Your task to perform on an android device: Open Maps and search for coffee Image 0: 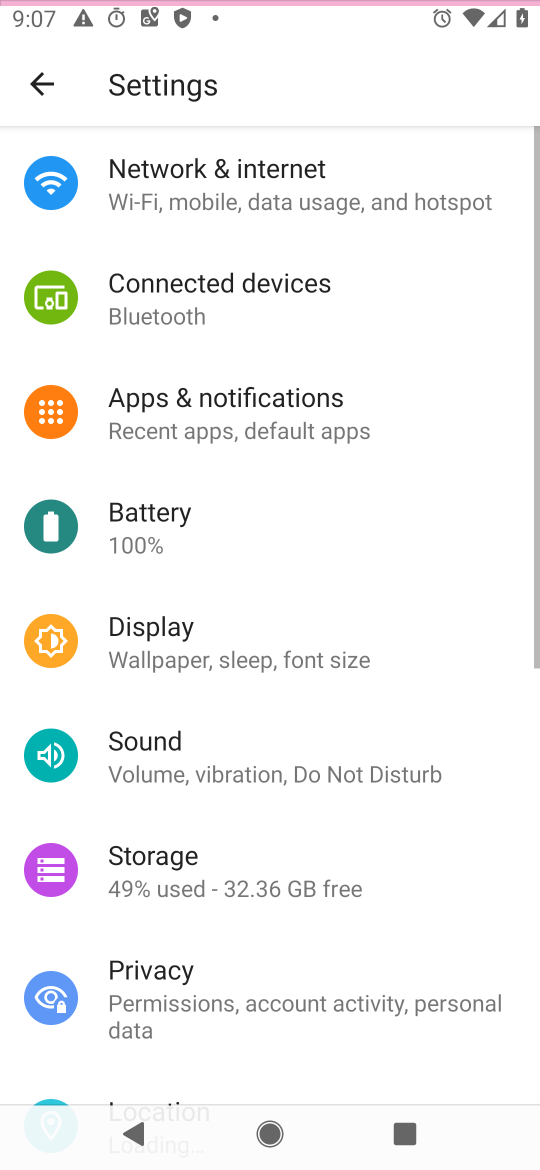
Step 0: press home button
Your task to perform on an android device: Open Maps and search for coffee Image 1: 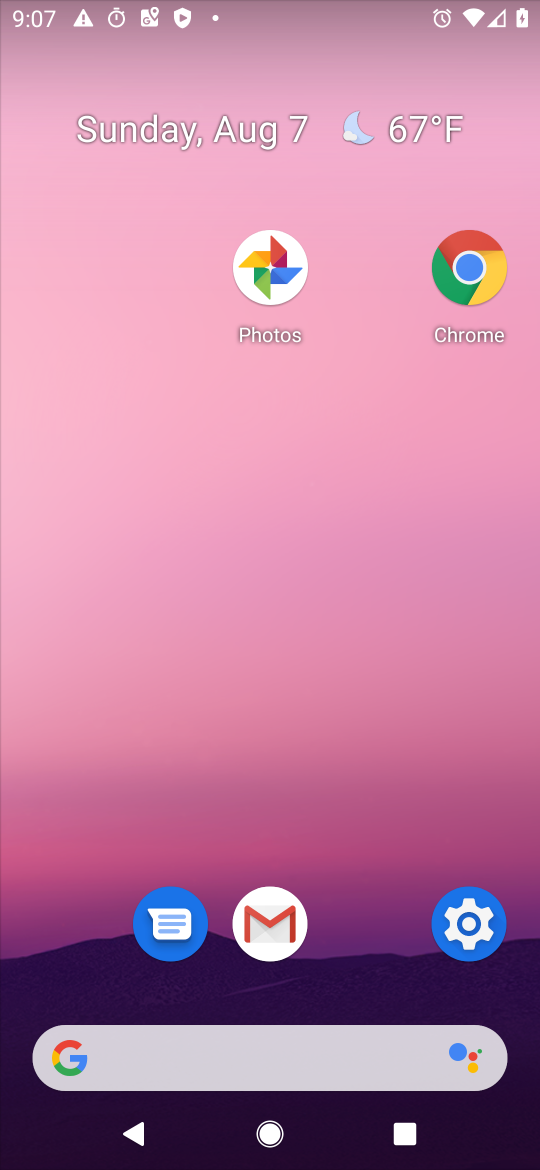
Step 1: drag from (380, 849) to (388, 370)
Your task to perform on an android device: Open Maps and search for coffee Image 2: 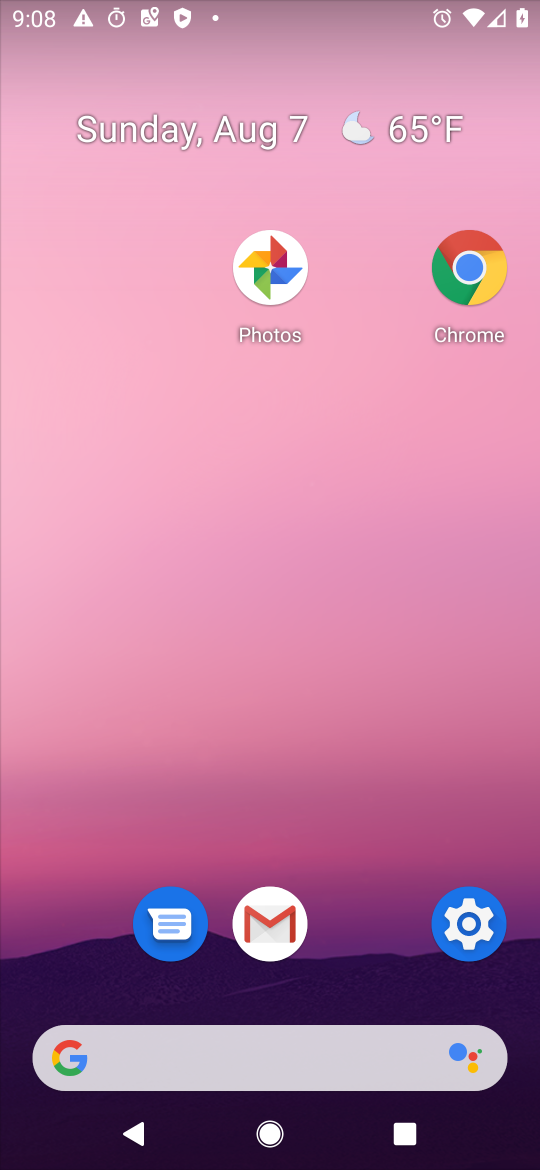
Step 2: drag from (273, 852) to (151, 196)
Your task to perform on an android device: Open Maps and search for coffee Image 3: 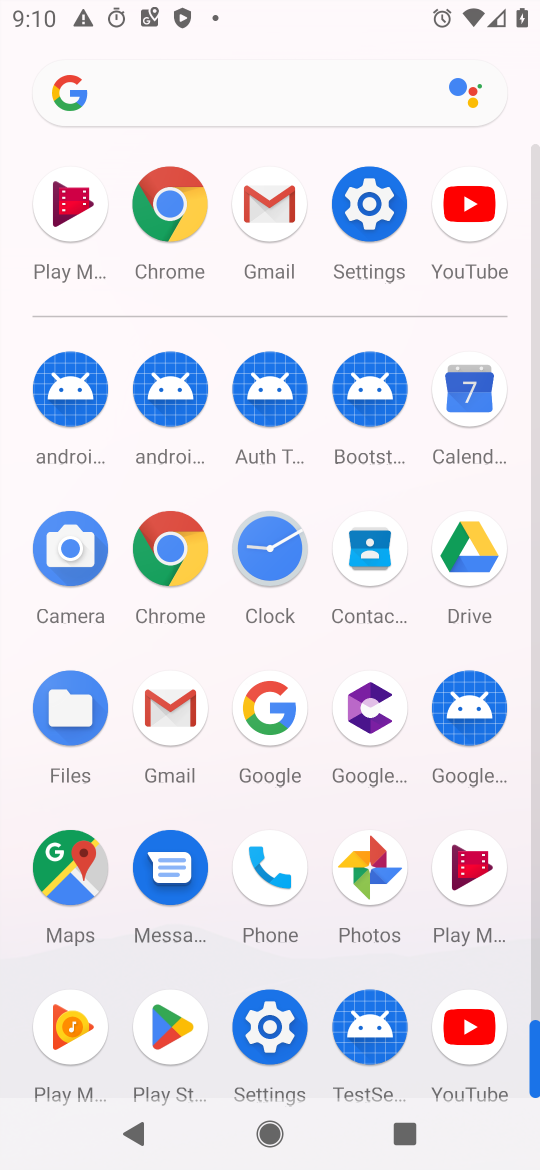
Step 3: click (77, 869)
Your task to perform on an android device: Open Maps and search for coffee Image 4: 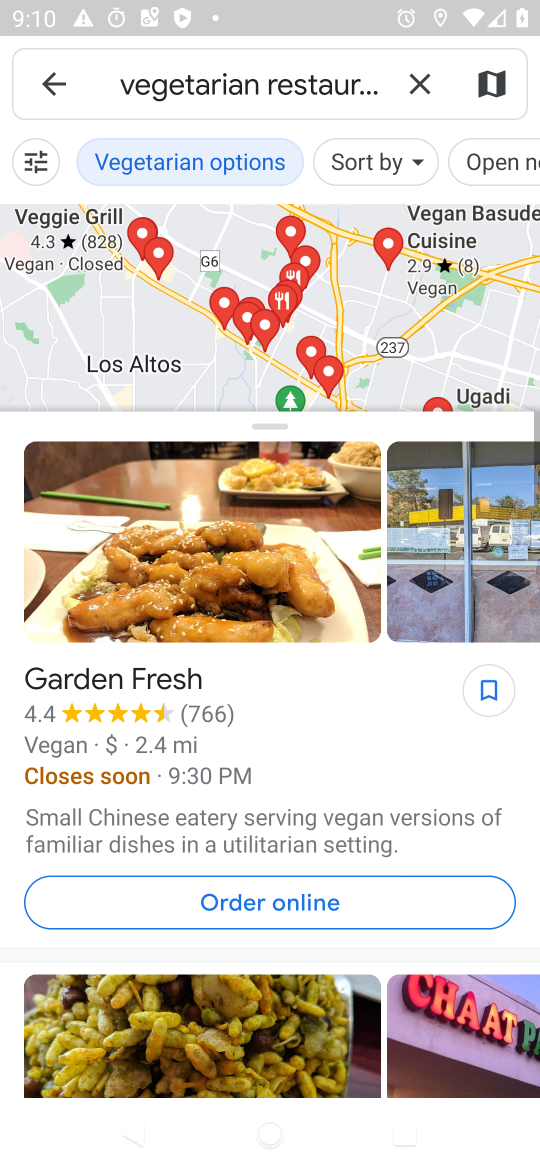
Step 4: click (419, 87)
Your task to perform on an android device: Open Maps and search for coffee Image 5: 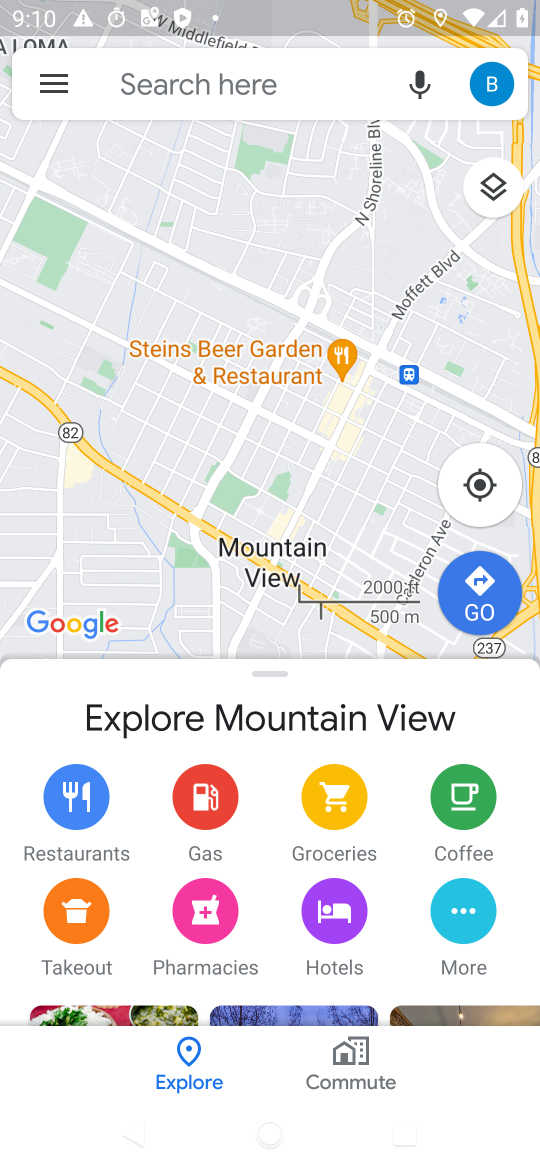
Step 5: click (247, 76)
Your task to perform on an android device: Open Maps and search for coffee Image 6: 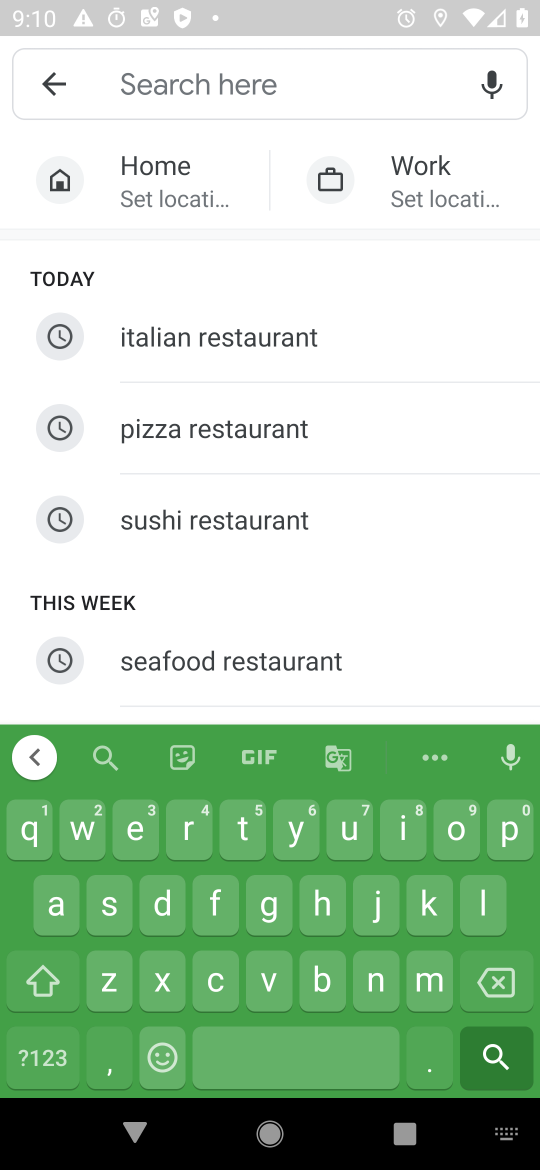
Step 6: click (216, 984)
Your task to perform on an android device: Open Maps and search for coffee Image 7: 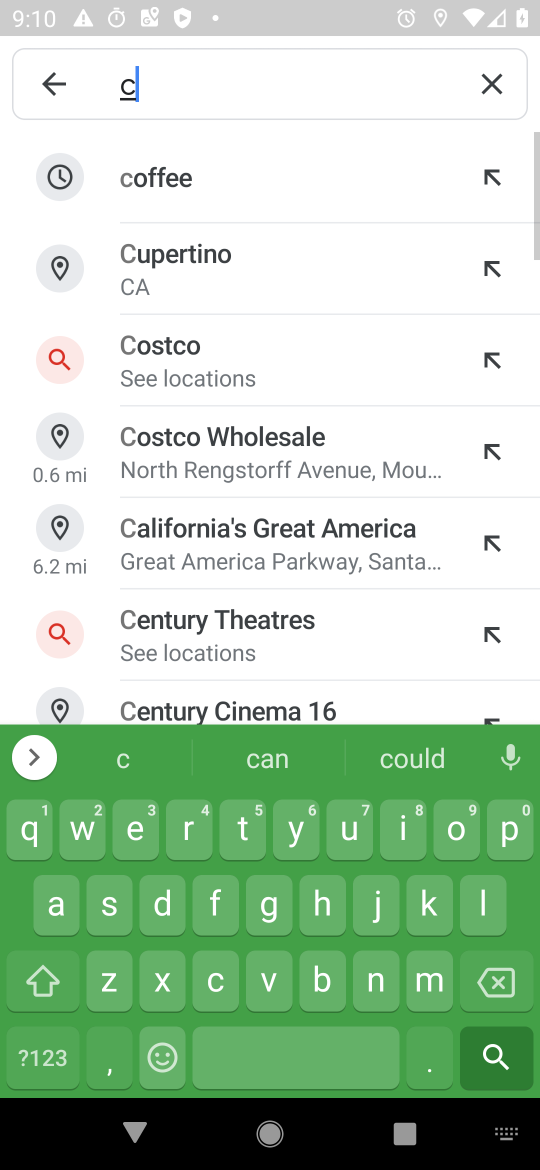
Step 7: click (213, 159)
Your task to perform on an android device: Open Maps and search for coffee Image 8: 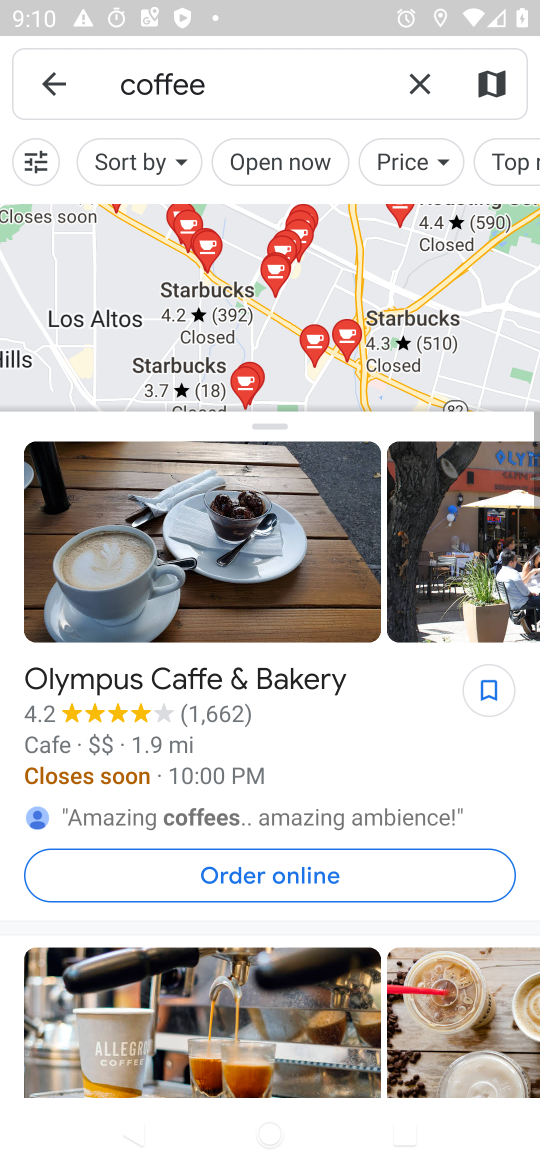
Step 8: task complete